Your task to perform on an android device: change notification settings in the gmail app Image 0: 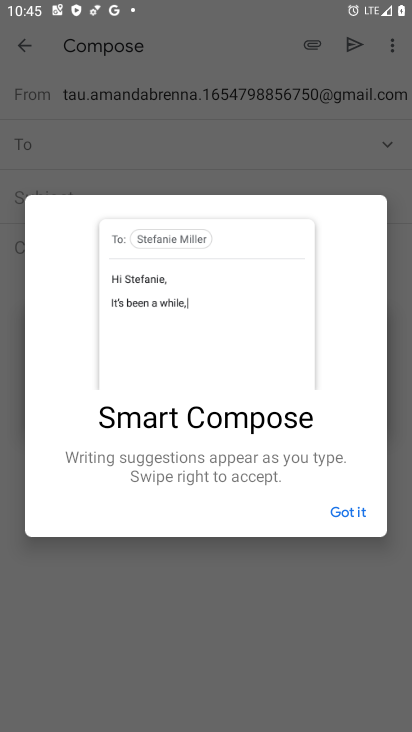
Step 0: press home button
Your task to perform on an android device: change notification settings in the gmail app Image 1: 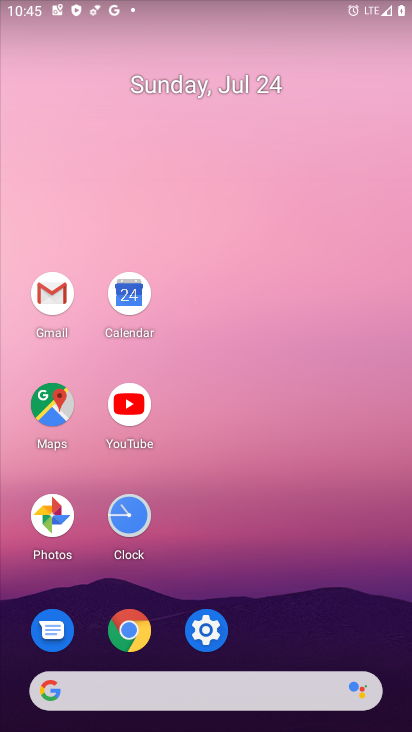
Step 1: click (43, 296)
Your task to perform on an android device: change notification settings in the gmail app Image 2: 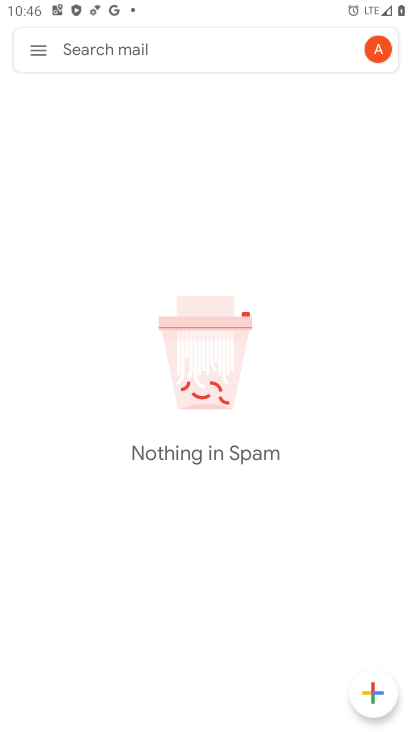
Step 2: click (38, 49)
Your task to perform on an android device: change notification settings in the gmail app Image 3: 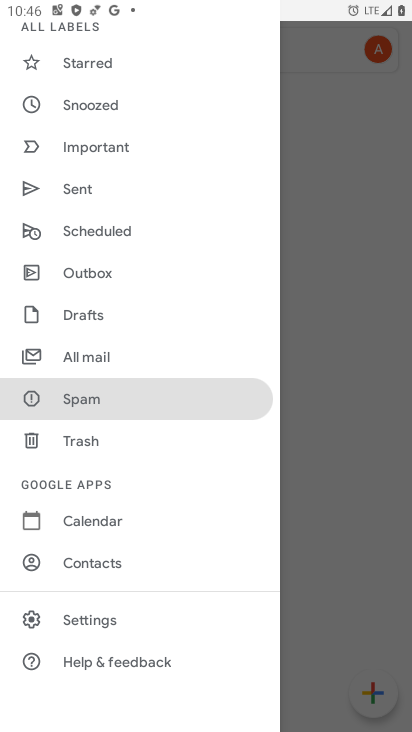
Step 3: click (93, 621)
Your task to perform on an android device: change notification settings in the gmail app Image 4: 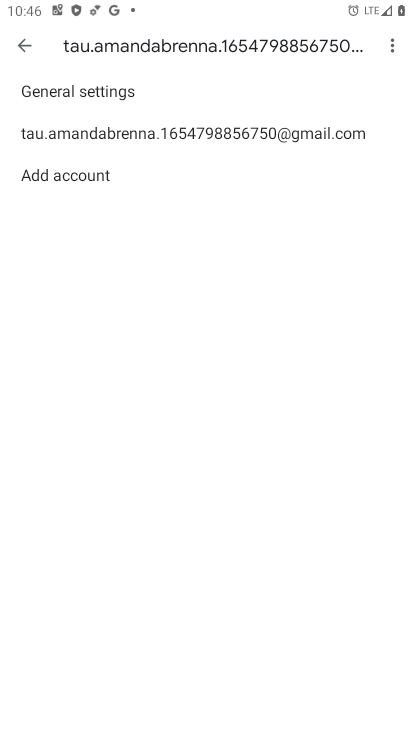
Step 4: click (66, 88)
Your task to perform on an android device: change notification settings in the gmail app Image 5: 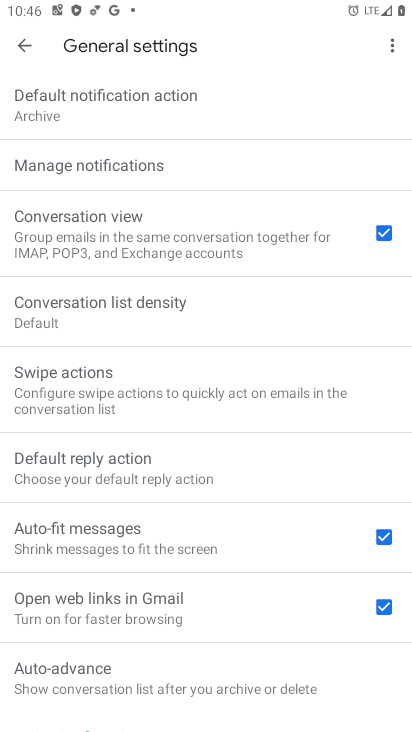
Step 5: click (91, 163)
Your task to perform on an android device: change notification settings in the gmail app Image 6: 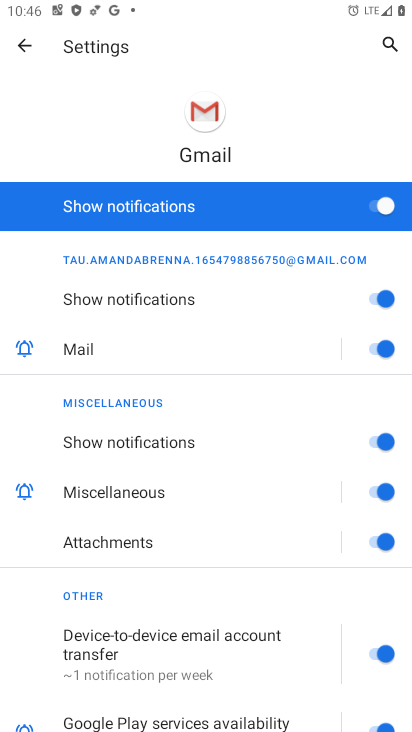
Step 6: click (377, 210)
Your task to perform on an android device: change notification settings in the gmail app Image 7: 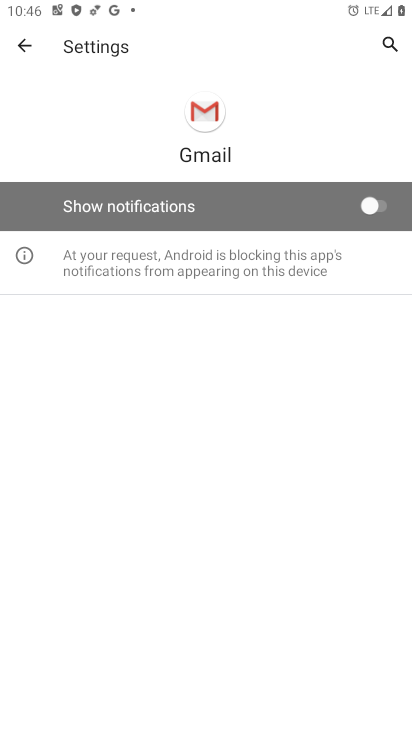
Step 7: task complete